Your task to perform on an android device: Open settings on Google Maps Image 0: 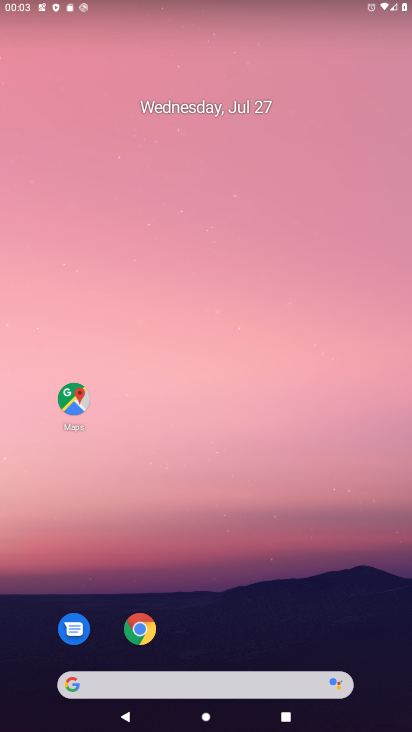
Step 0: drag from (222, 720) to (296, 3)
Your task to perform on an android device: Open settings on Google Maps Image 1: 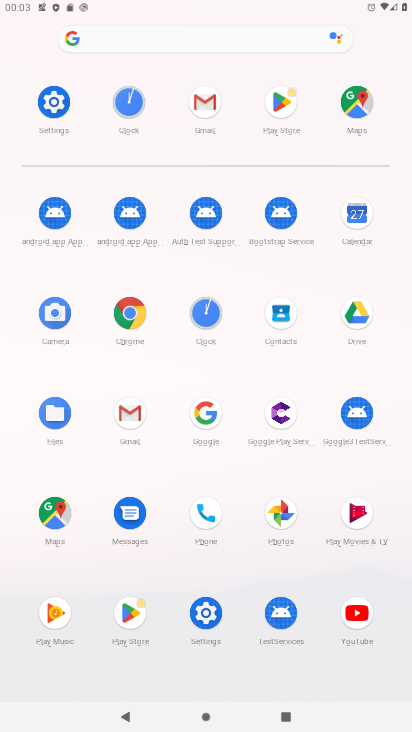
Step 1: click (43, 501)
Your task to perform on an android device: Open settings on Google Maps Image 2: 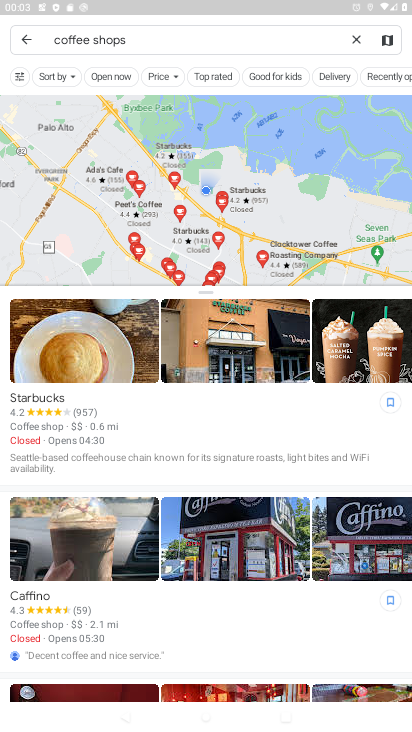
Step 2: click (22, 40)
Your task to perform on an android device: Open settings on Google Maps Image 3: 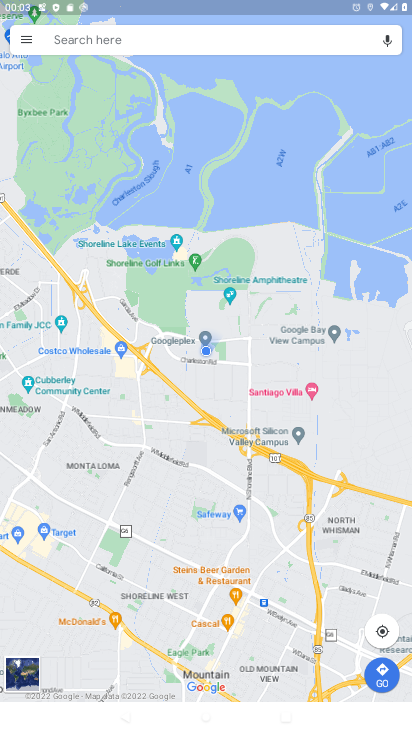
Step 3: click (30, 34)
Your task to perform on an android device: Open settings on Google Maps Image 4: 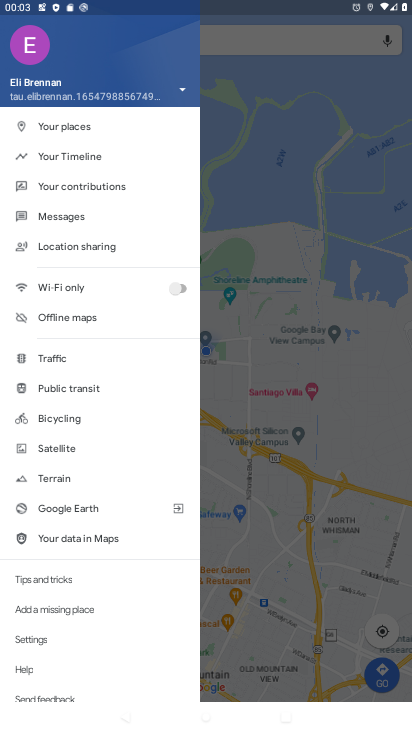
Step 4: click (31, 641)
Your task to perform on an android device: Open settings on Google Maps Image 5: 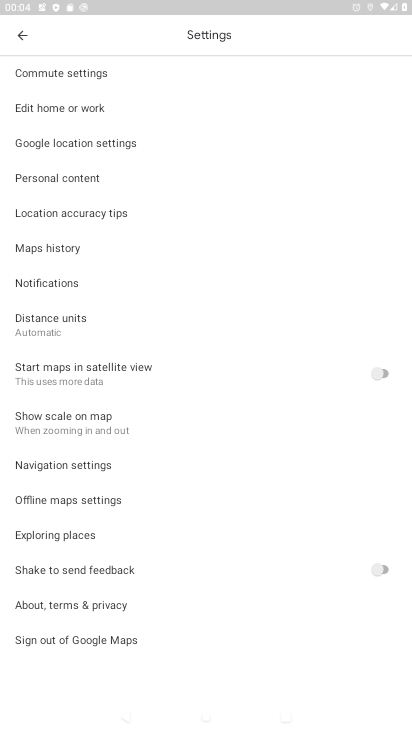
Step 5: task complete